Your task to perform on an android device: Go to Google maps Image 0: 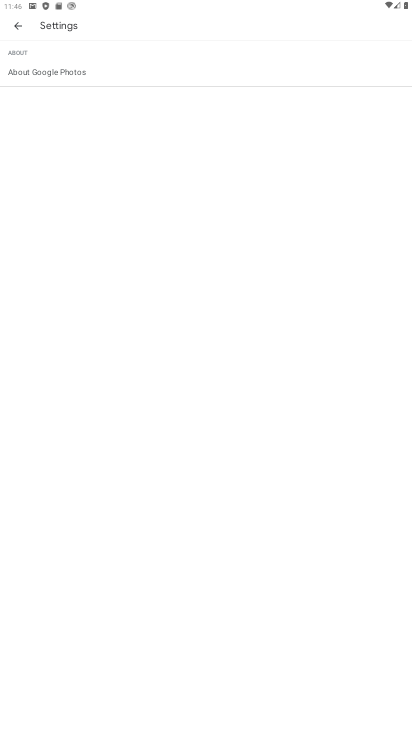
Step 0: press home button
Your task to perform on an android device: Go to Google maps Image 1: 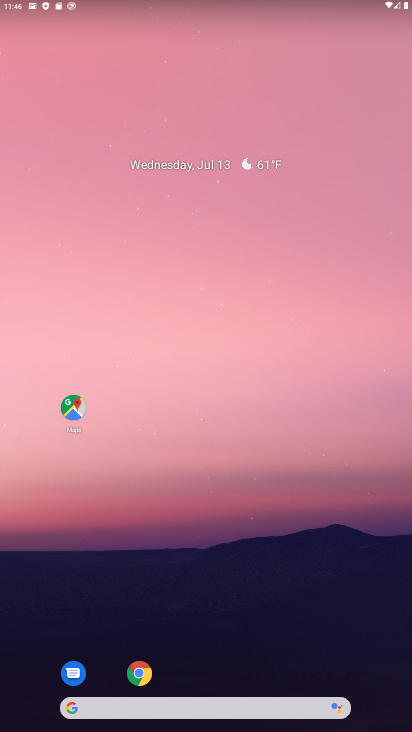
Step 1: drag from (226, 429) to (265, 160)
Your task to perform on an android device: Go to Google maps Image 2: 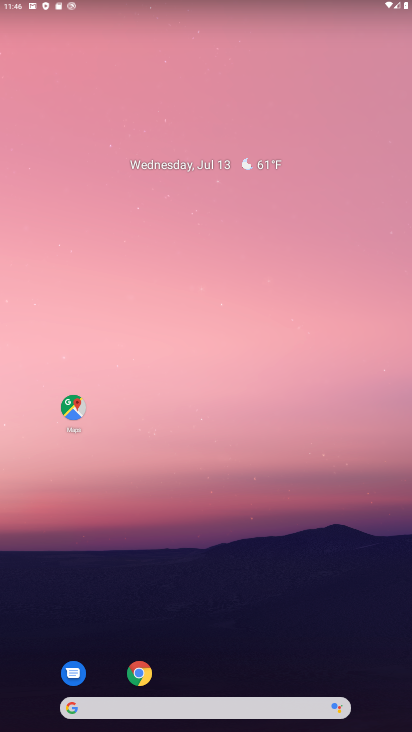
Step 2: drag from (226, 637) to (246, 186)
Your task to perform on an android device: Go to Google maps Image 3: 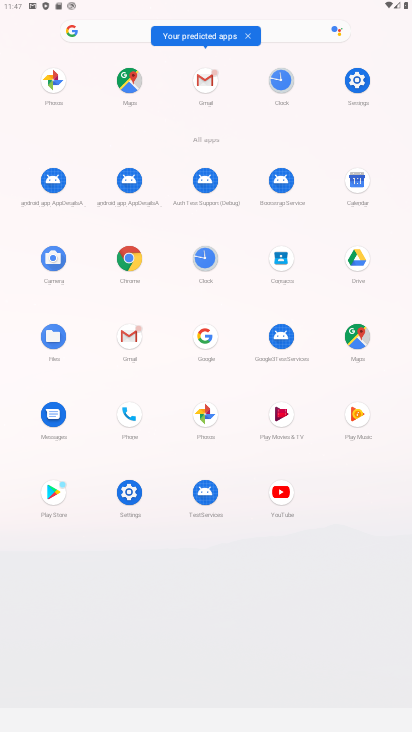
Step 3: click (361, 329)
Your task to perform on an android device: Go to Google maps Image 4: 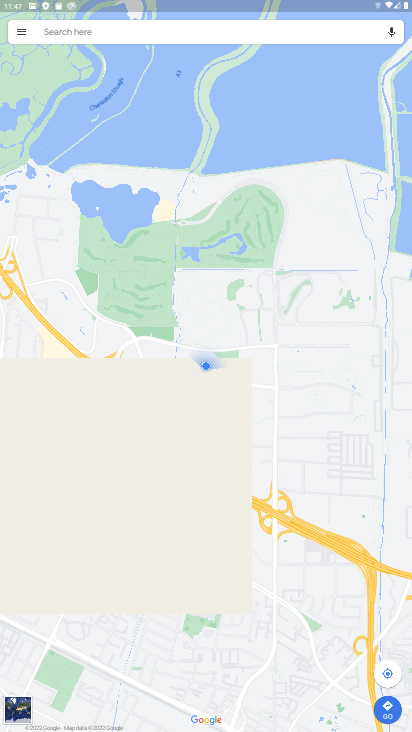
Step 4: task complete